Your task to perform on an android device: Open the calendar and show me this week's events? Image 0: 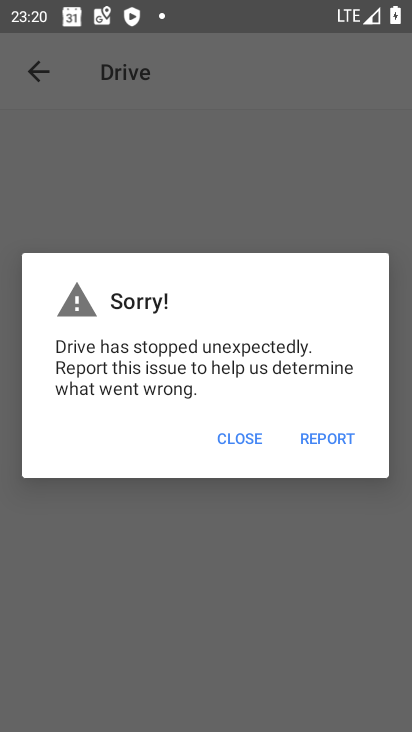
Step 0: press home button
Your task to perform on an android device: Open the calendar and show me this week's events? Image 1: 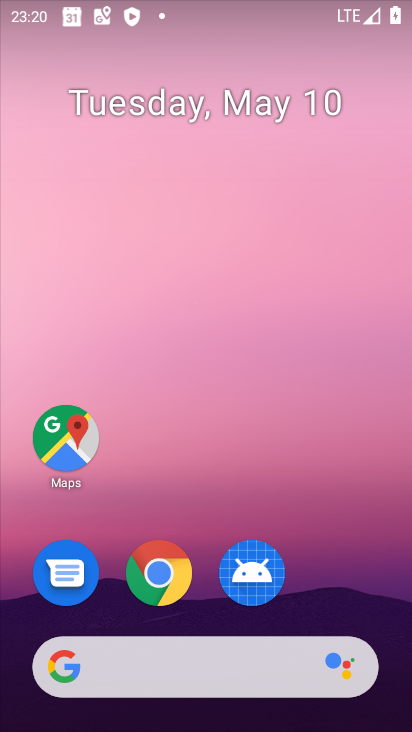
Step 1: drag from (357, 517) to (232, 2)
Your task to perform on an android device: Open the calendar and show me this week's events? Image 2: 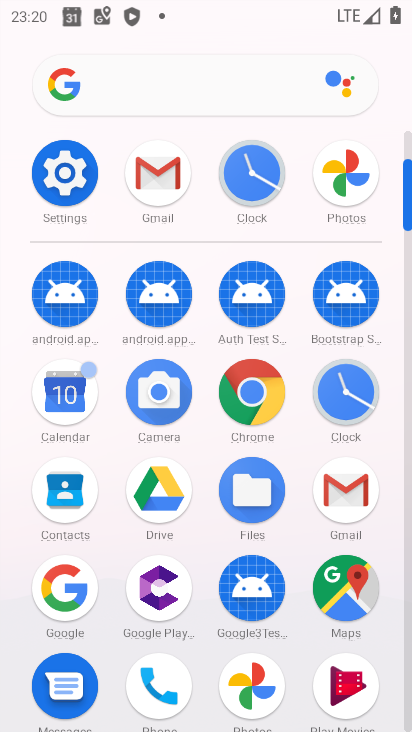
Step 2: click (61, 394)
Your task to perform on an android device: Open the calendar and show me this week's events? Image 3: 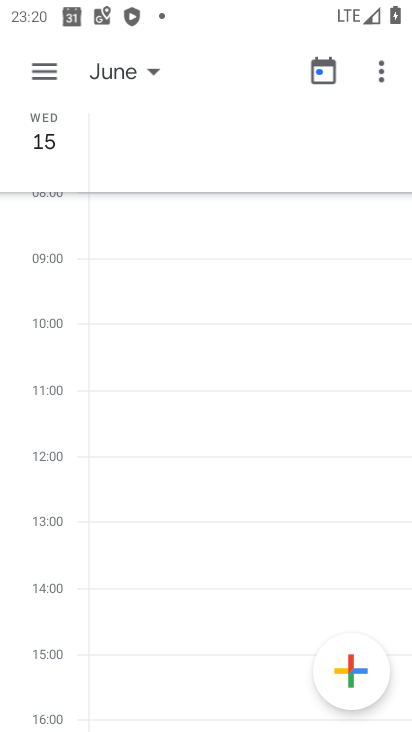
Step 3: click (44, 72)
Your task to perform on an android device: Open the calendar and show me this week's events? Image 4: 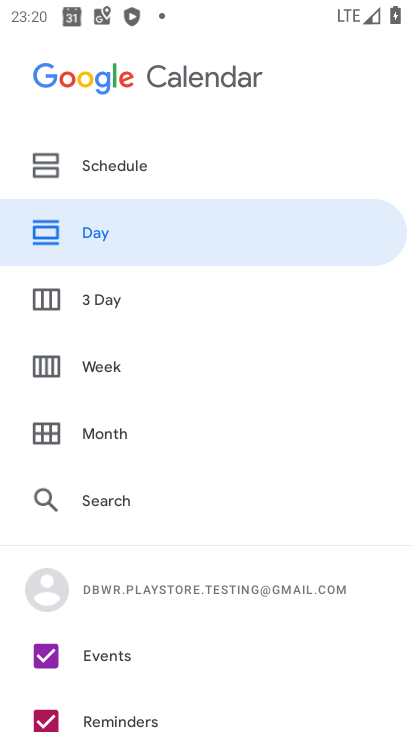
Step 4: click (101, 361)
Your task to perform on an android device: Open the calendar and show me this week's events? Image 5: 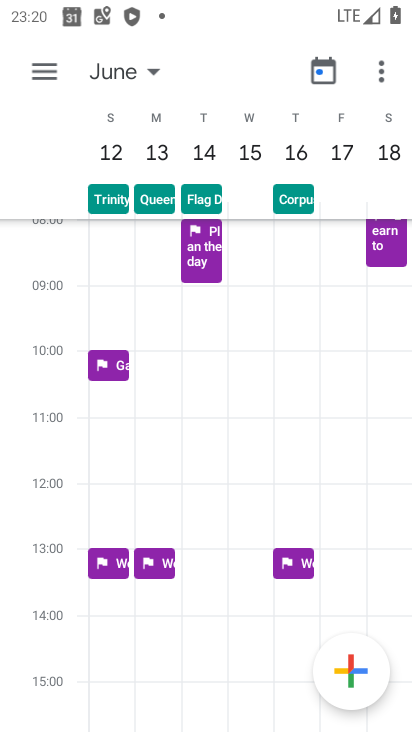
Step 5: click (151, 71)
Your task to perform on an android device: Open the calendar and show me this week's events? Image 6: 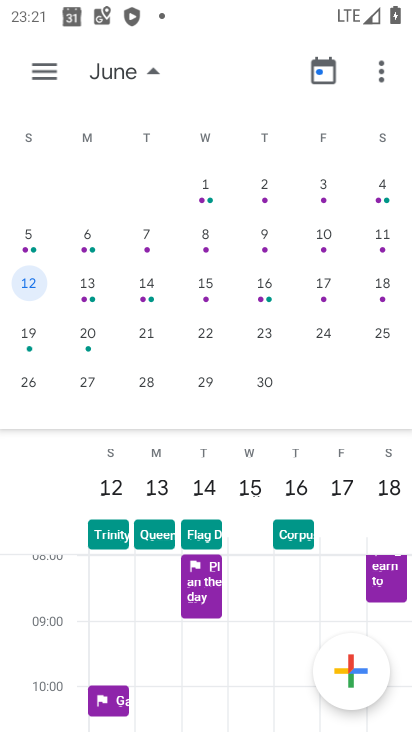
Step 6: task complete